Your task to perform on an android device: Go to sound settings Image 0: 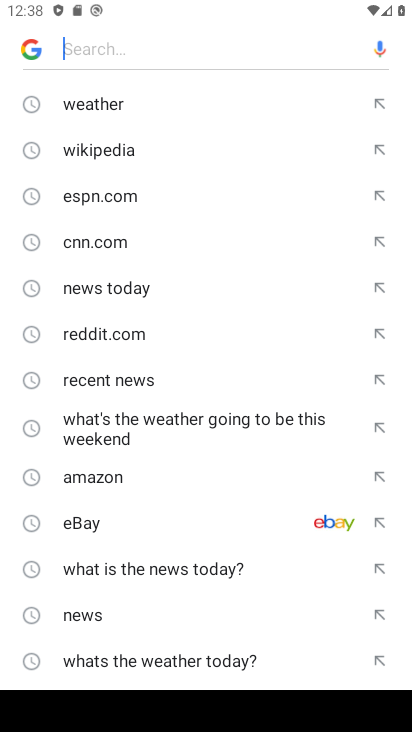
Step 0: press back button
Your task to perform on an android device: Go to sound settings Image 1: 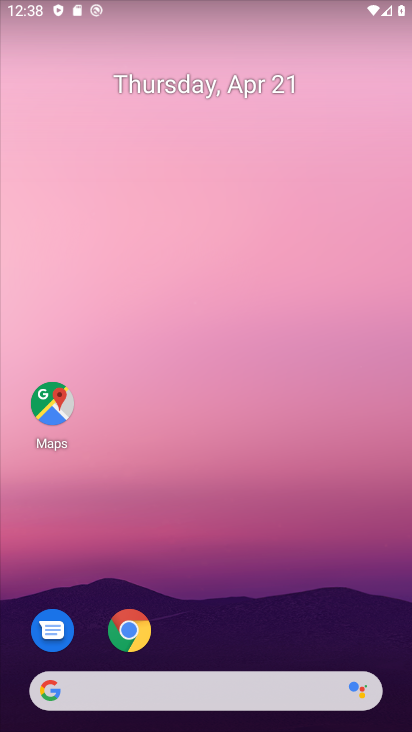
Step 1: drag from (283, 585) to (276, 117)
Your task to perform on an android device: Go to sound settings Image 2: 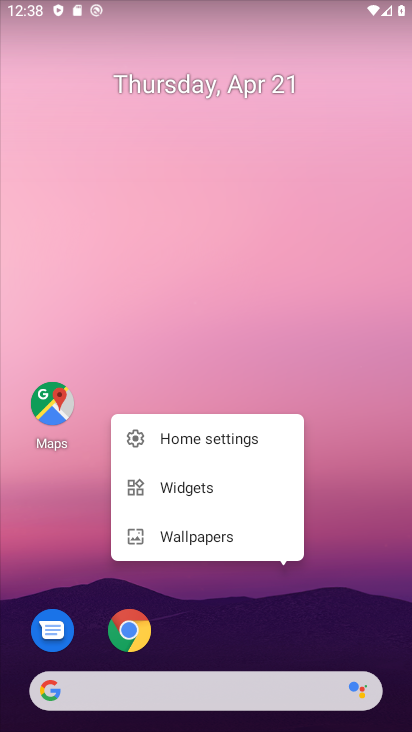
Step 2: click (339, 512)
Your task to perform on an android device: Go to sound settings Image 3: 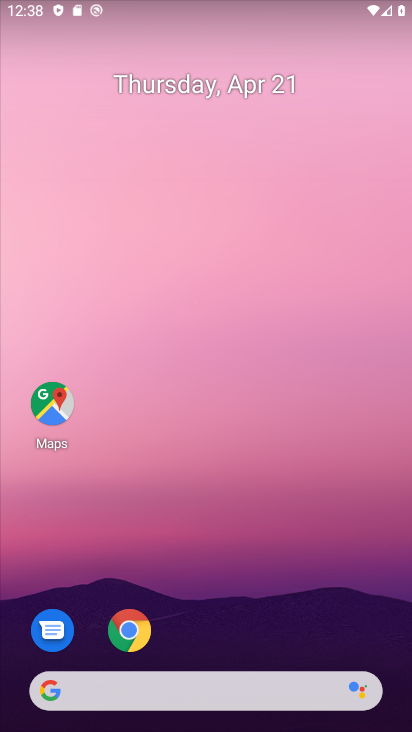
Step 3: drag from (267, 585) to (251, 2)
Your task to perform on an android device: Go to sound settings Image 4: 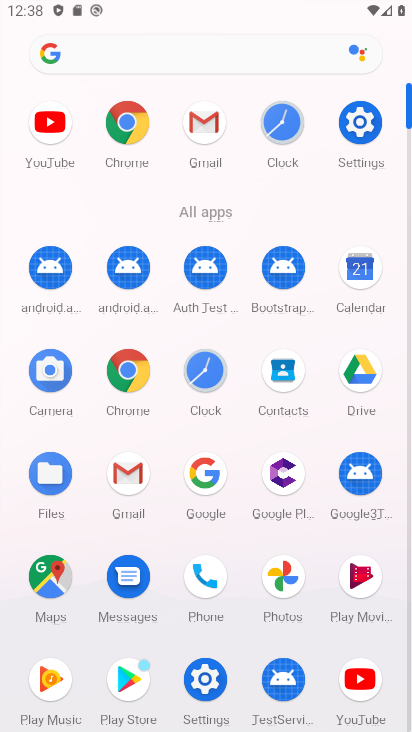
Step 4: click (356, 150)
Your task to perform on an android device: Go to sound settings Image 5: 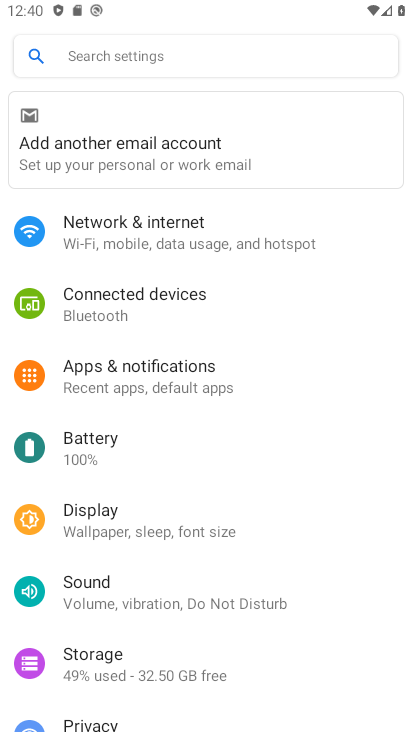
Step 5: click (185, 605)
Your task to perform on an android device: Go to sound settings Image 6: 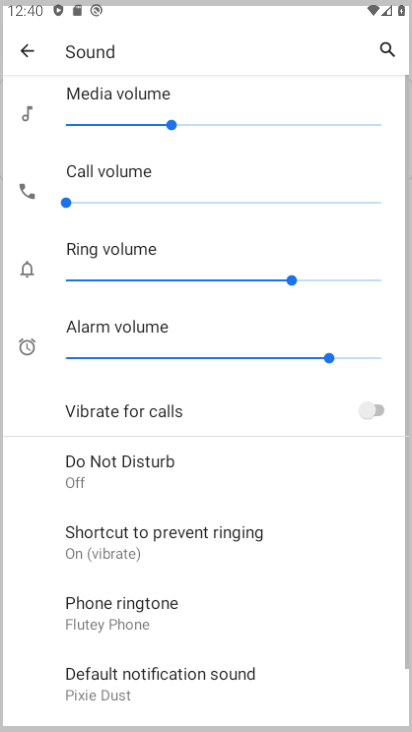
Step 6: task complete